Your task to perform on an android device: See recent photos Image 0: 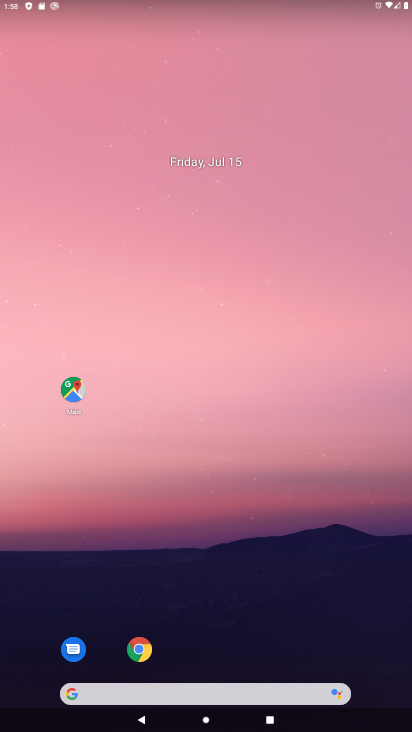
Step 0: drag from (187, 670) to (294, 45)
Your task to perform on an android device: See recent photos Image 1: 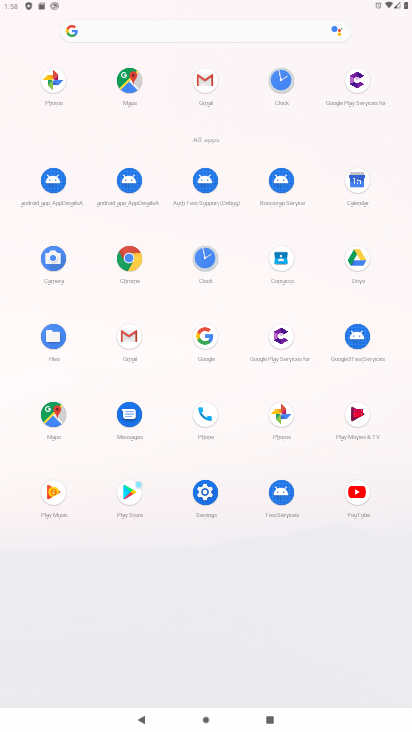
Step 1: click (57, 91)
Your task to perform on an android device: See recent photos Image 2: 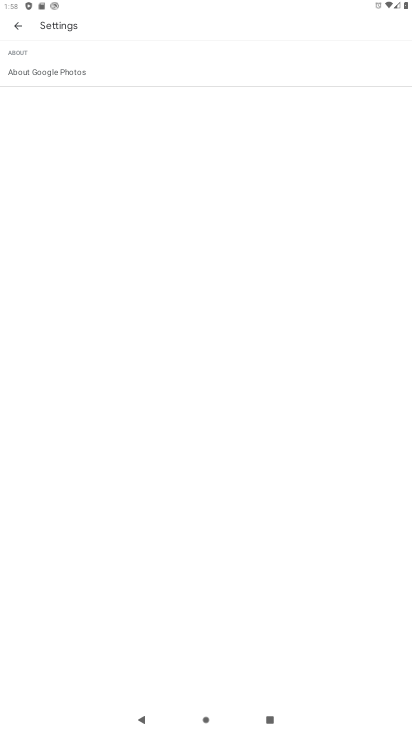
Step 2: click (10, 27)
Your task to perform on an android device: See recent photos Image 3: 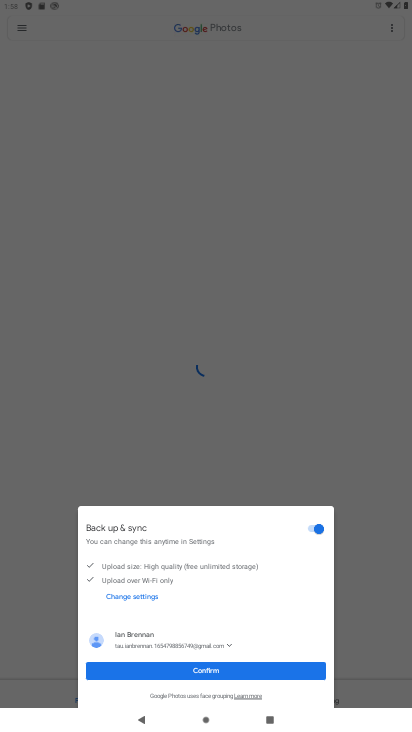
Step 3: click (227, 675)
Your task to perform on an android device: See recent photos Image 4: 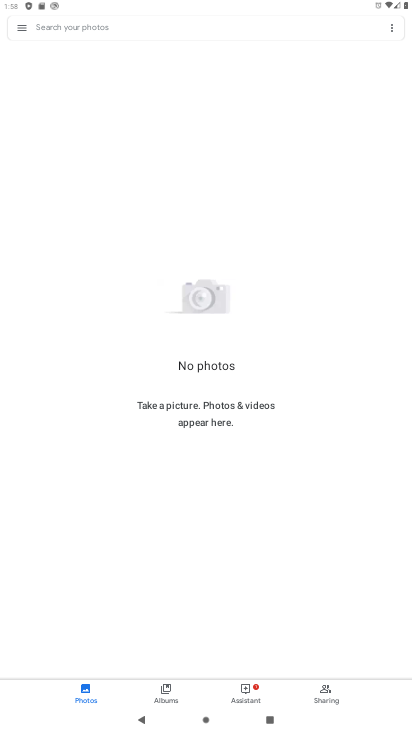
Step 4: task complete